Your task to perform on an android device: set default search engine in the chrome app Image 0: 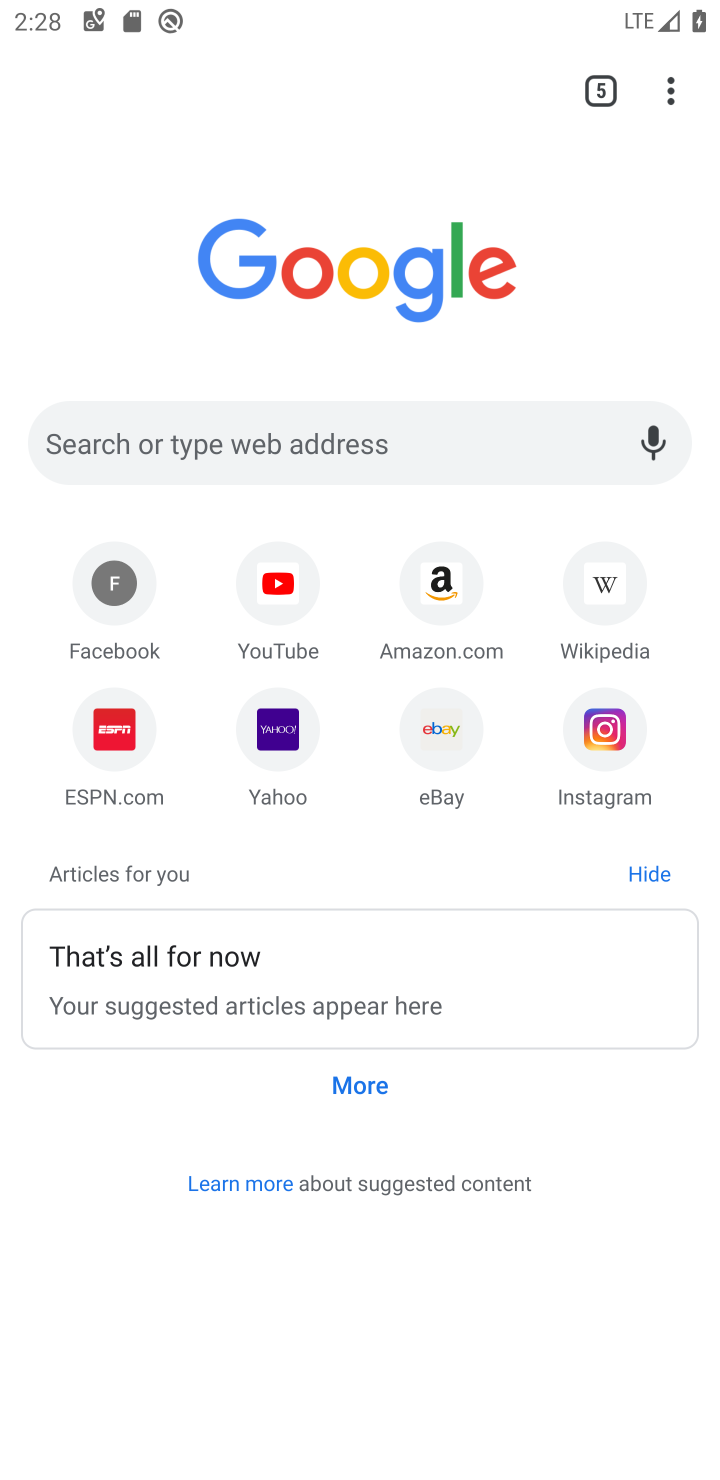
Step 0: press home button
Your task to perform on an android device: set default search engine in the chrome app Image 1: 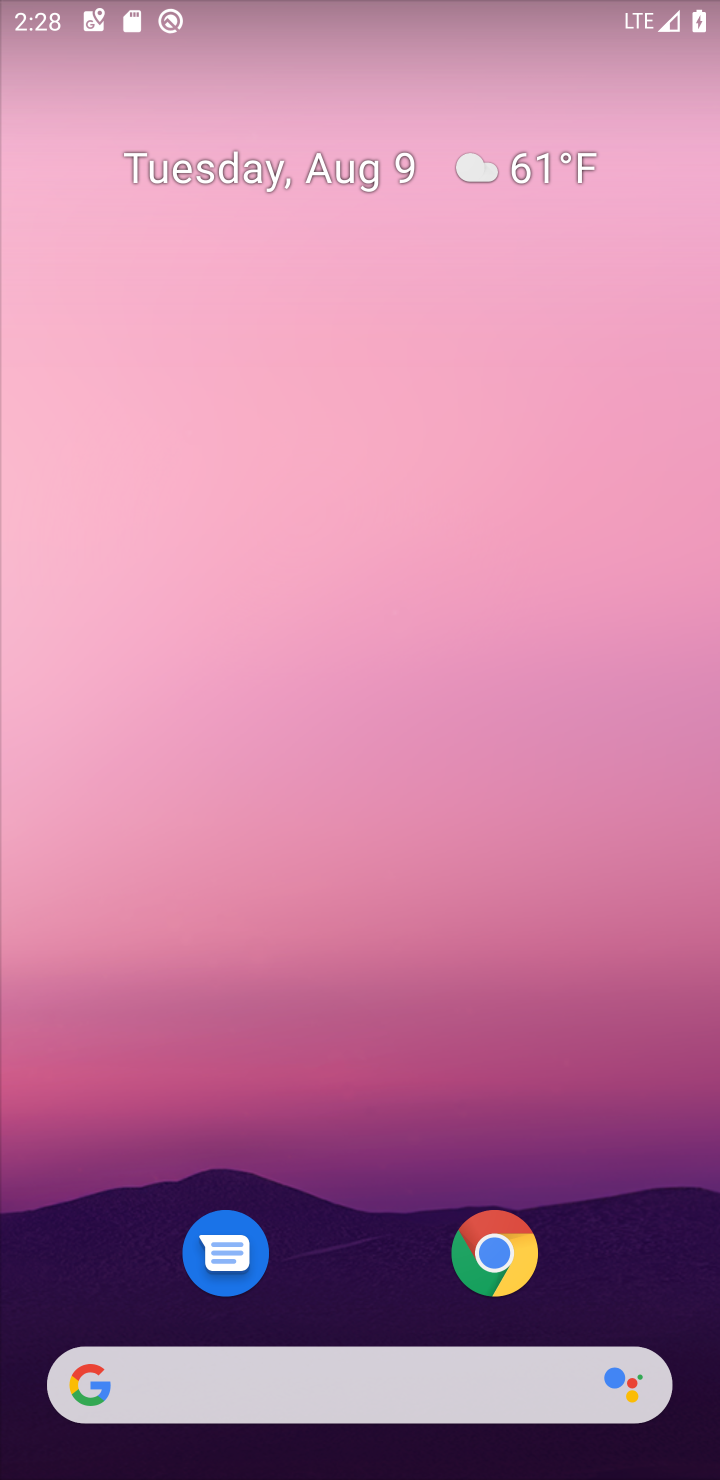
Step 1: drag from (650, 1321) to (301, 22)
Your task to perform on an android device: set default search engine in the chrome app Image 2: 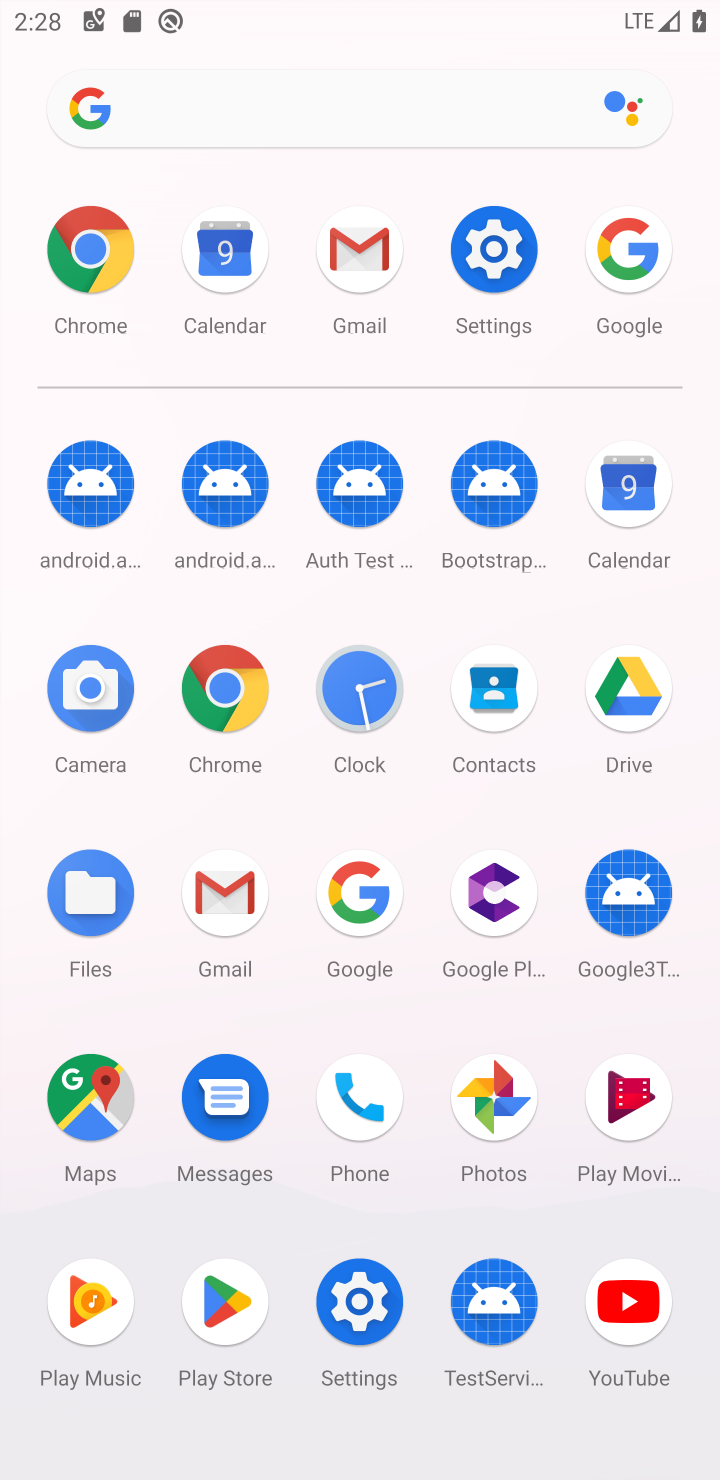
Step 2: click (212, 690)
Your task to perform on an android device: set default search engine in the chrome app Image 3: 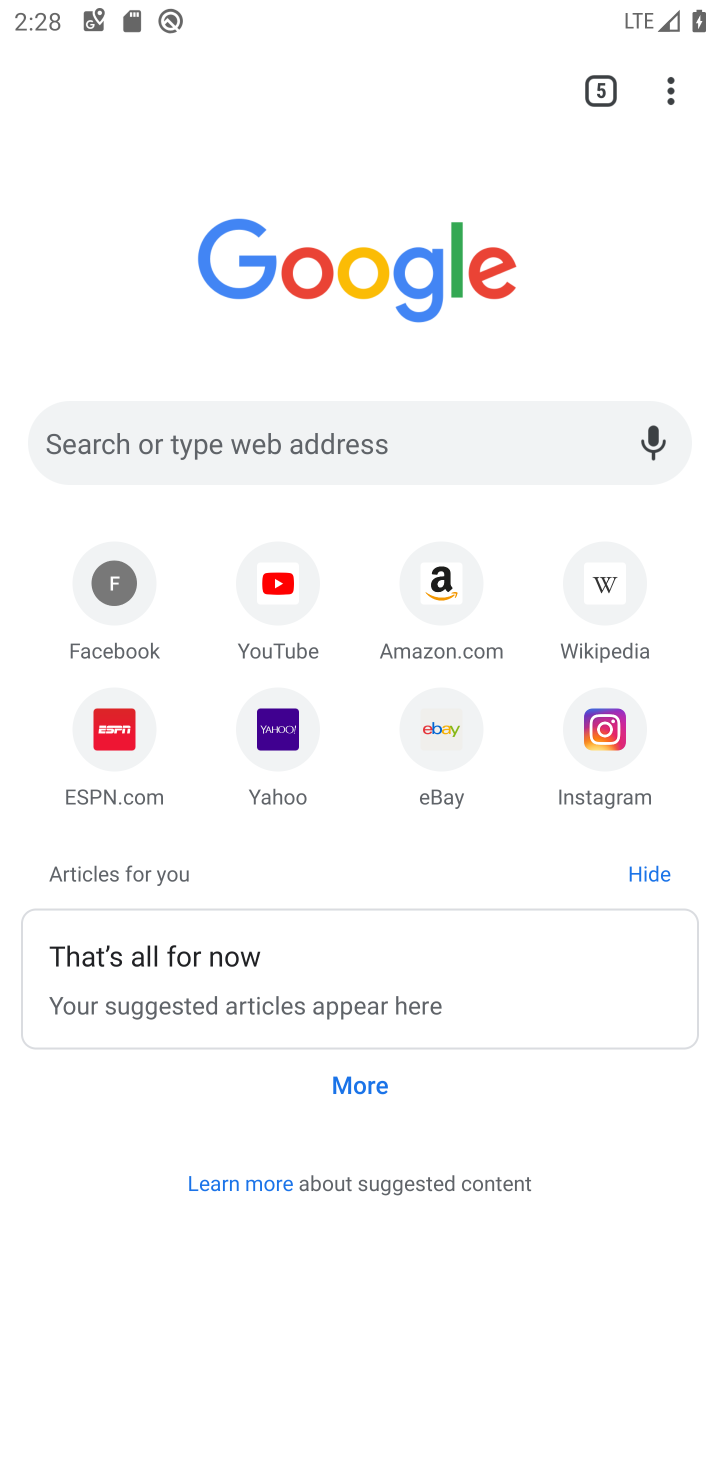
Step 3: click (667, 86)
Your task to perform on an android device: set default search engine in the chrome app Image 4: 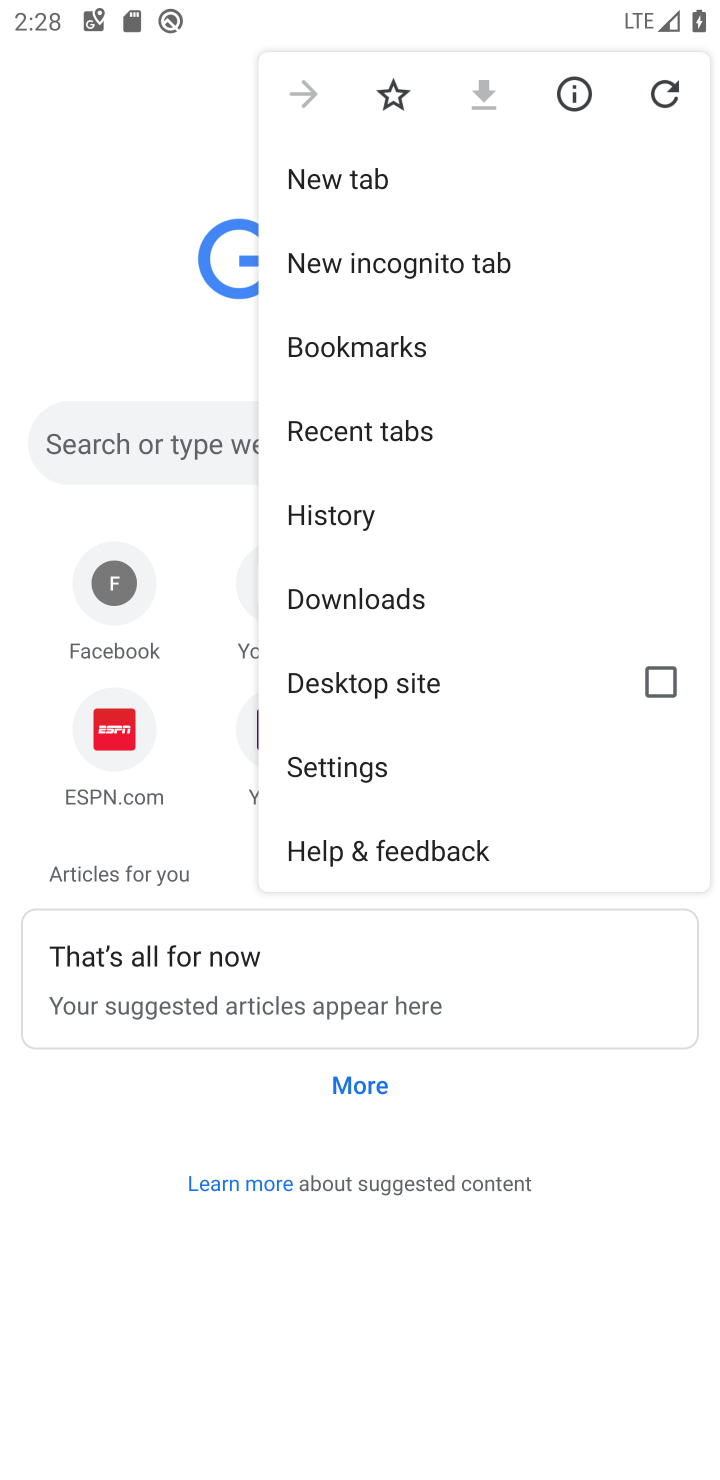
Step 4: click (377, 784)
Your task to perform on an android device: set default search engine in the chrome app Image 5: 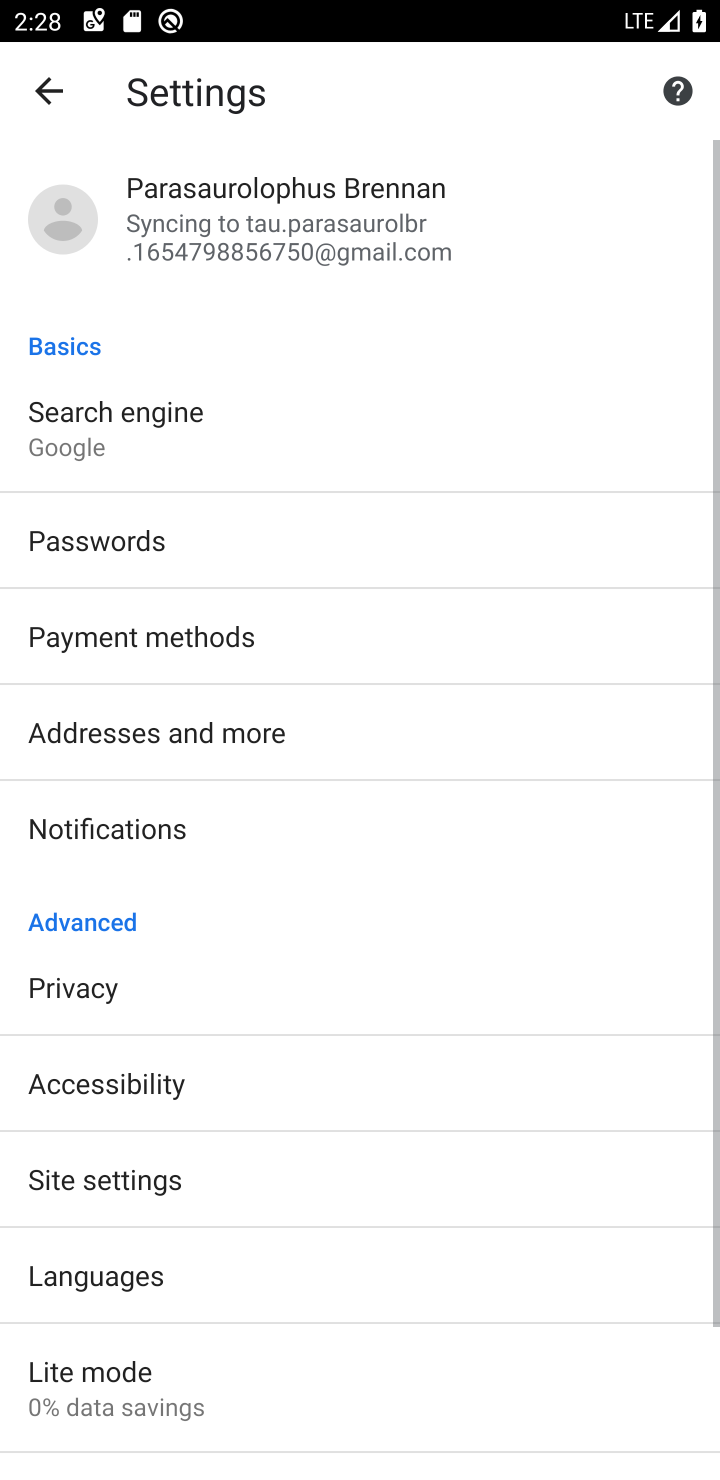
Step 5: click (142, 443)
Your task to perform on an android device: set default search engine in the chrome app Image 6: 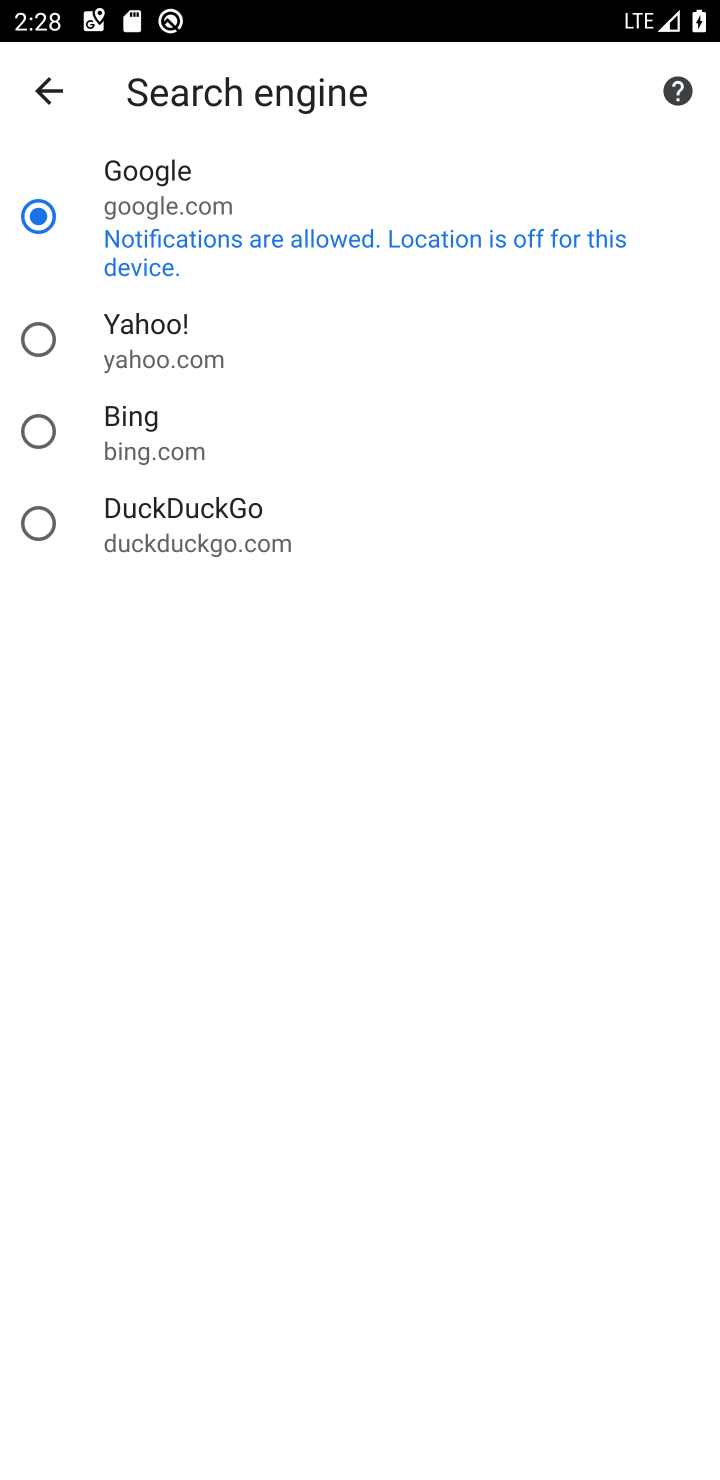
Step 6: click (142, 439)
Your task to perform on an android device: set default search engine in the chrome app Image 7: 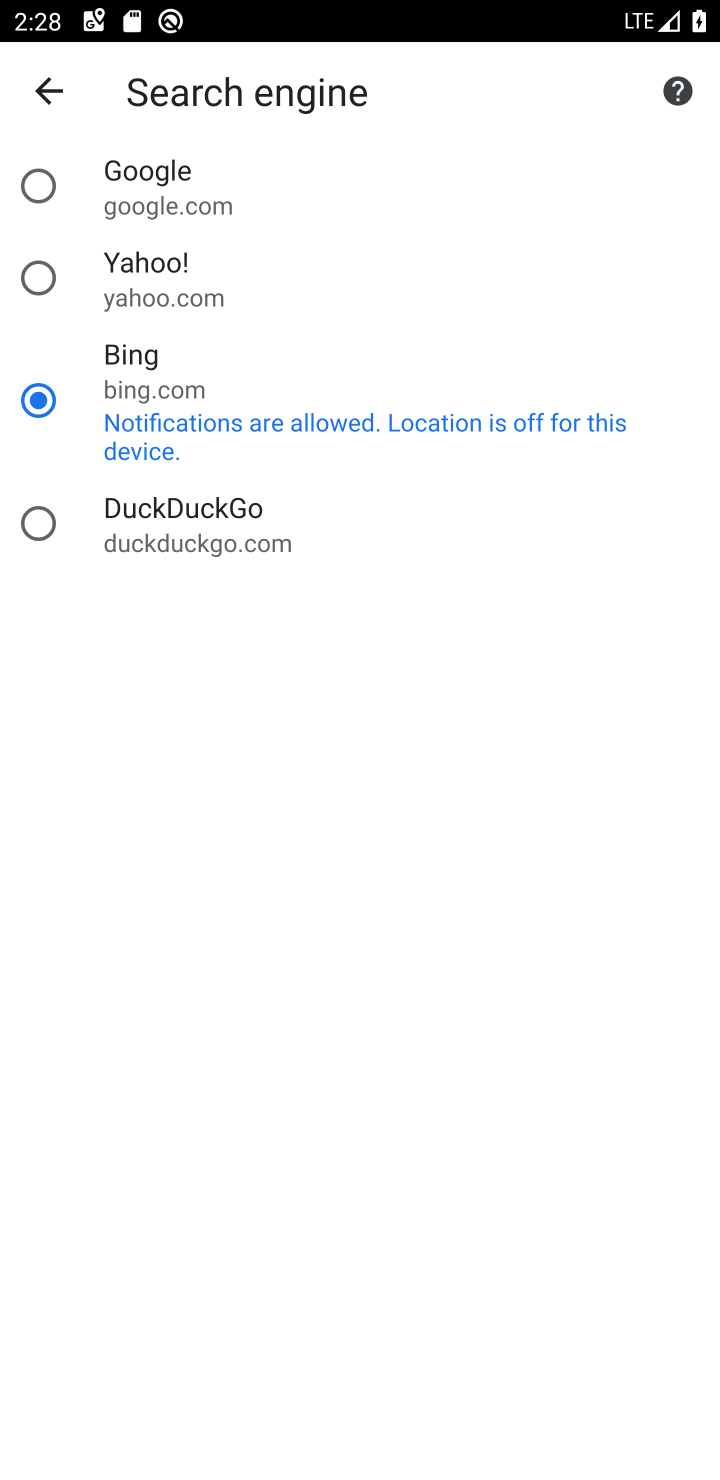
Step 7: task complete